Your task to perform on an android device: Go to notification settings Image 0: 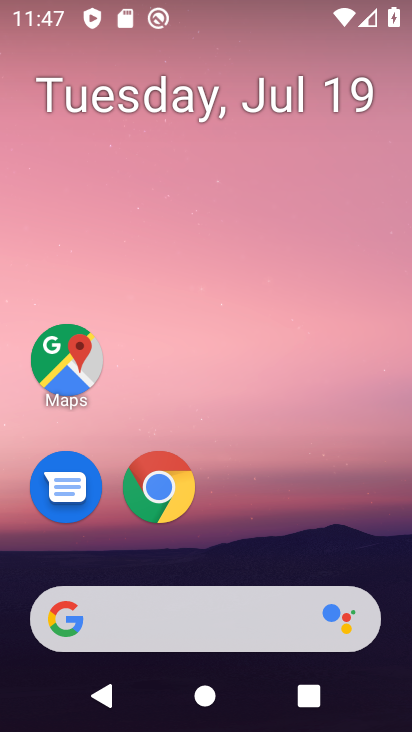
Step 0: drag from (207, 560) to (262, 10)
Your task to perform on an android device: Go to notification settings Image 1: 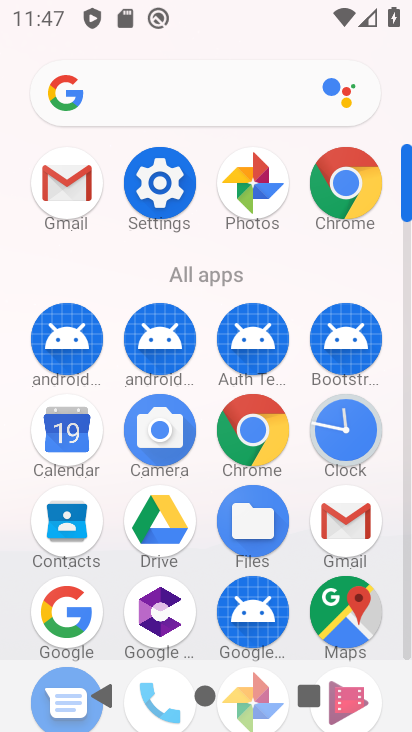
Step 1: click (172, 183)
Your task to perform on an android device: Go to notification settings Image 2: 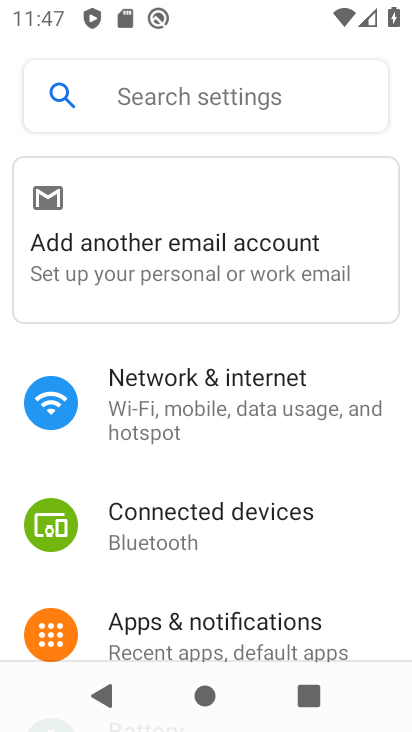
Step 2: click (216, 623)
Your task to perform on an android device: Go to notification settings Image 3: 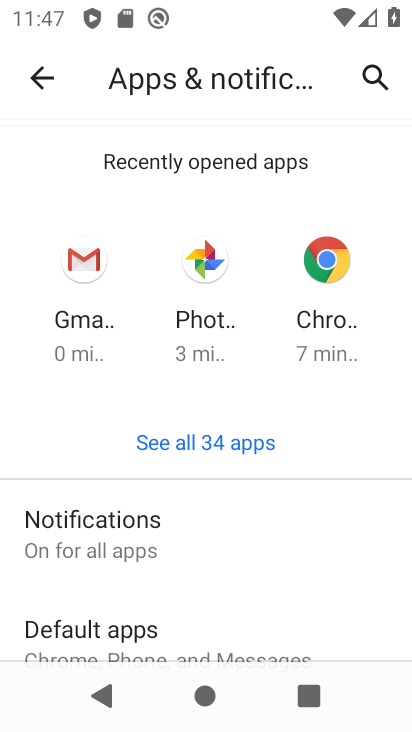
Step 3: task complete